Your task to perform on an android device: Open Chrome and go to settings Image 0: 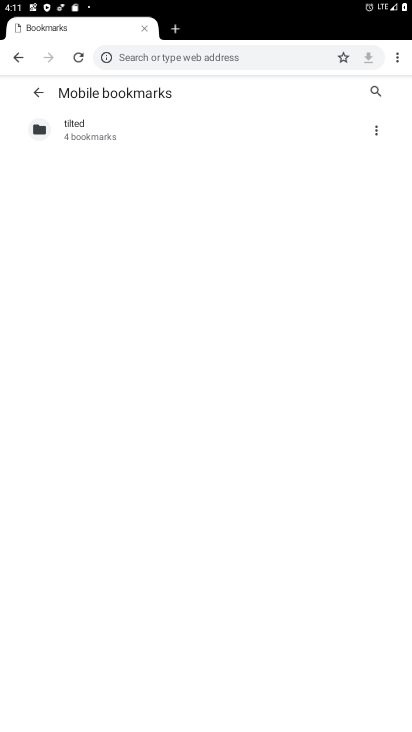
Step 0: drag from (239, 642) to (262, 108)
Your task to perform on an android device: Open Chrome and go to settings Image 1: 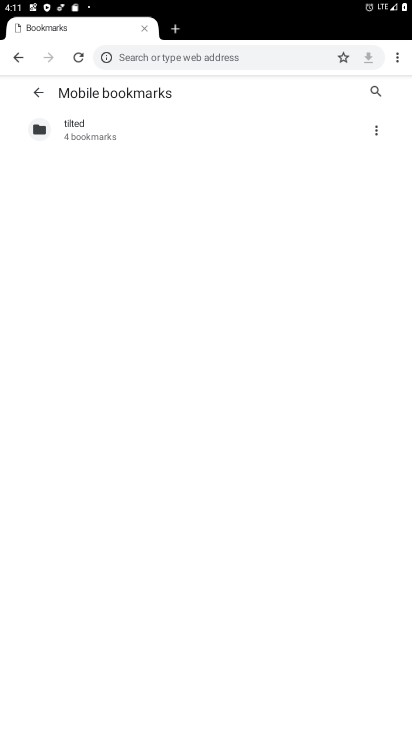
Step 1: task complete